Your task to perform on an android device: check the backup settings in the google photos Image 0: 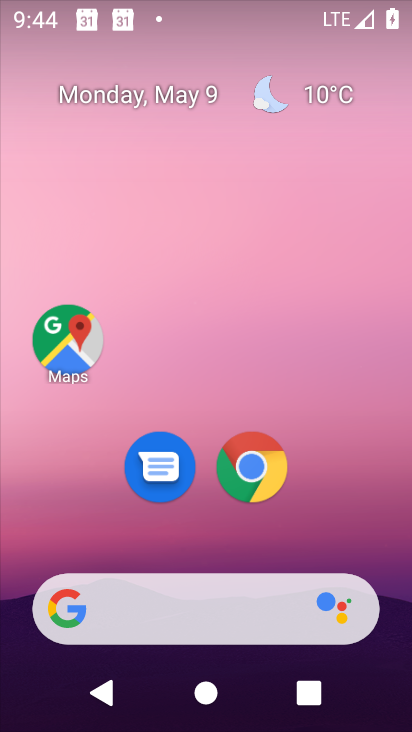
Step 0: drag from (385, 553) to (338, 1)
Your task to perform on an android device: check the backup settings in the google photos Image 1: 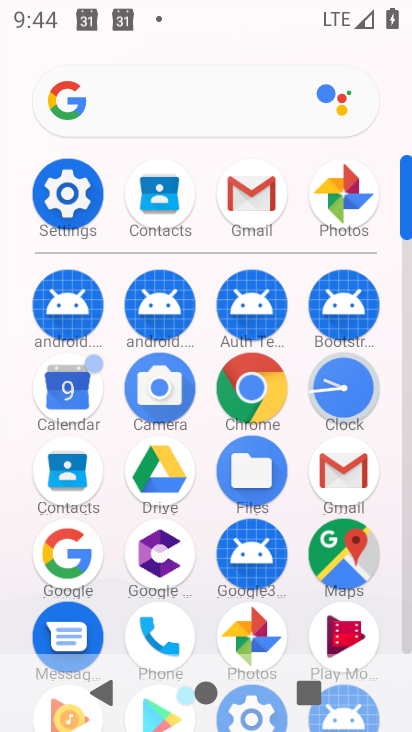
Step 1: click (339, 201)
Your task to perform on an android device: check the backup settings in the google photos Image 2: 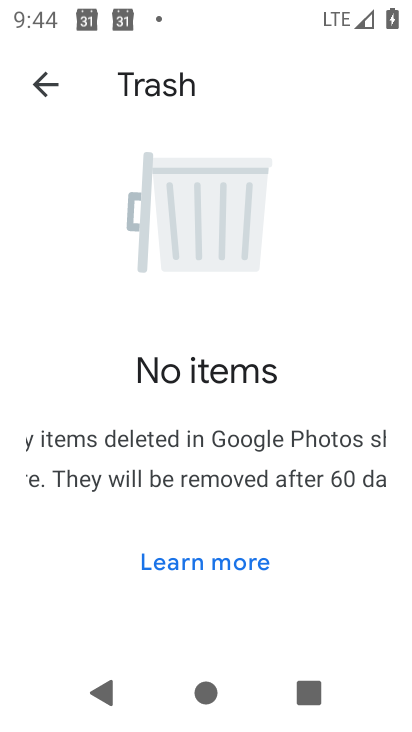
Step 2: click (38, 89)
Your task to perform on an android device: check the backup settings in the google photos Image 3: 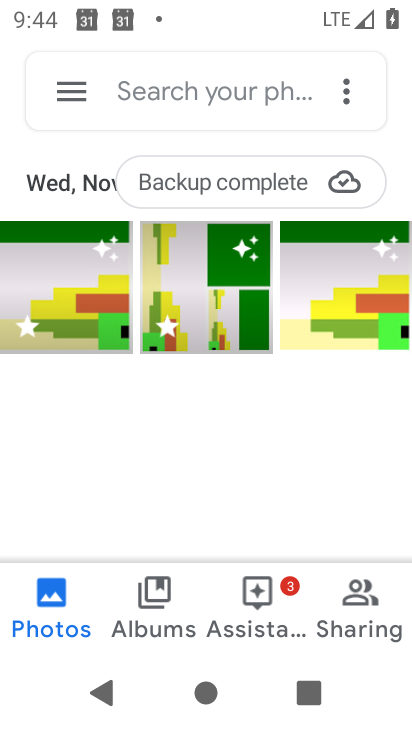
Step 3: click (64, 86)
Your task to perform on an android device: check the backup settings in the google photos Image 4: 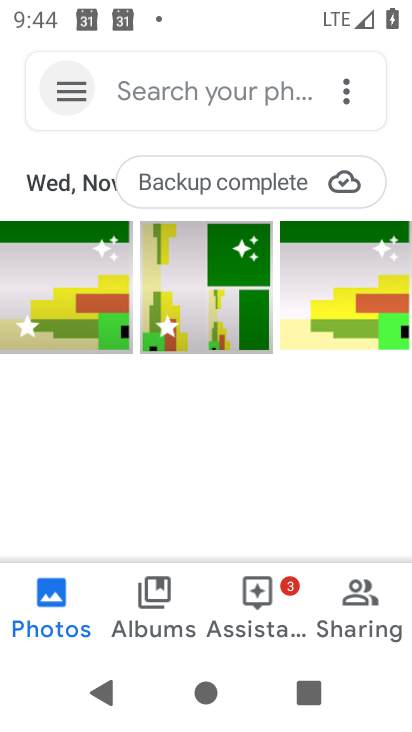
Step 4: click (67, 98)
Your task to perform on an android device: check the backup settings in the google photos Image 5: 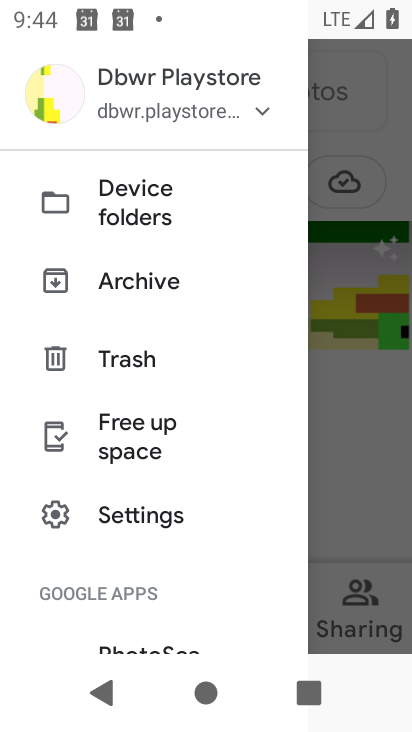
Step 5: click (148, 517)
Your task to perform on an android device: check the backup settings in the google photos Image 6: 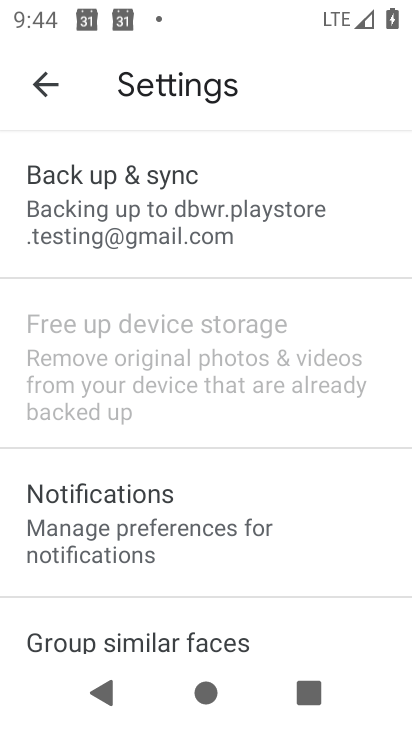
Step 6: click (152, 186)
Your task to perform on an android device: check the backup settings in the google photos Image 7: 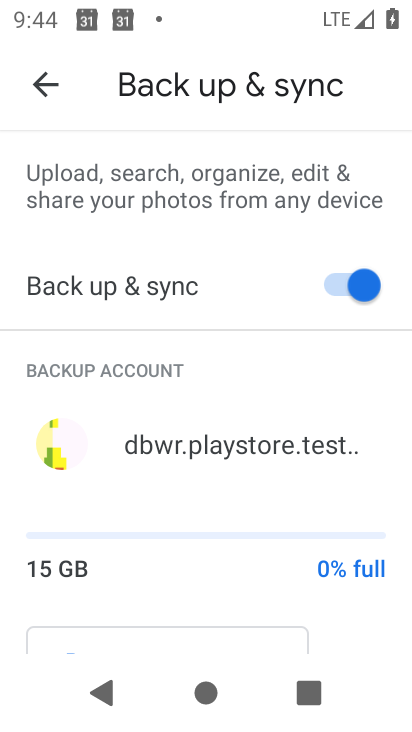
Step 7: task complete